Your task to perform on an android device: clear history in the chrome app Image 0: 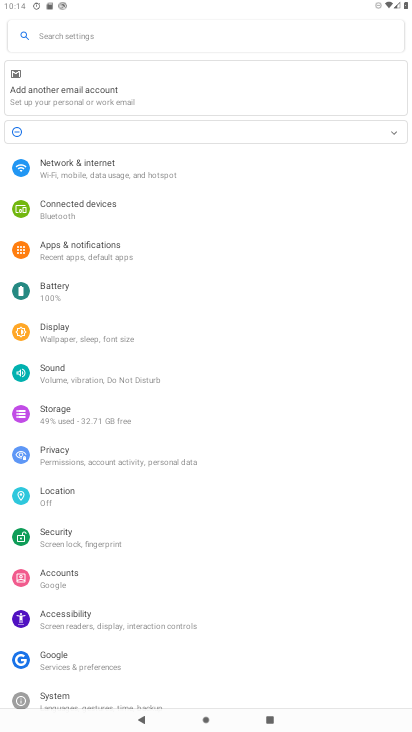
Step 0: press home button
Your task to perform on an android device: clear history in the chrome app Image 1: 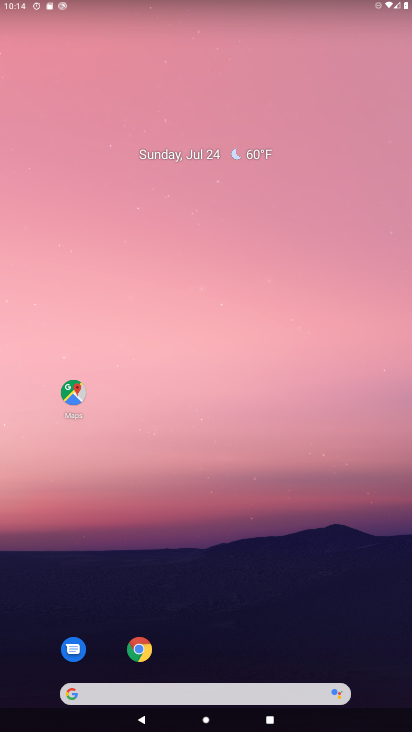
Step 1: drag from (255, 644) to (285, 71)
Your task to perform on an android device: clear history in the chrome app Image 2: 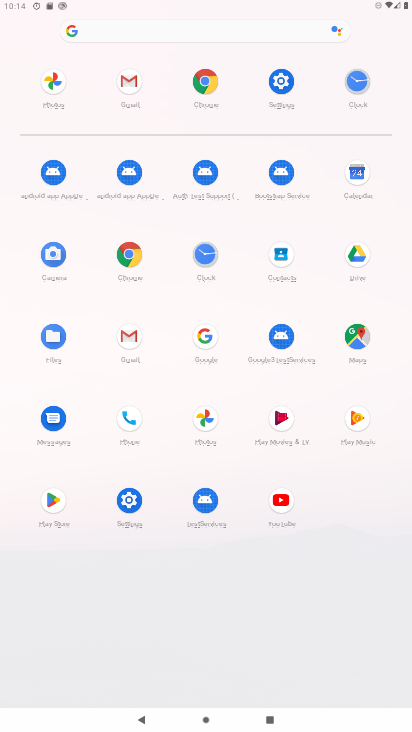
Step 2: click (211, 82)
Your task to perform on an android device: clear history in the chrome app Image 3: 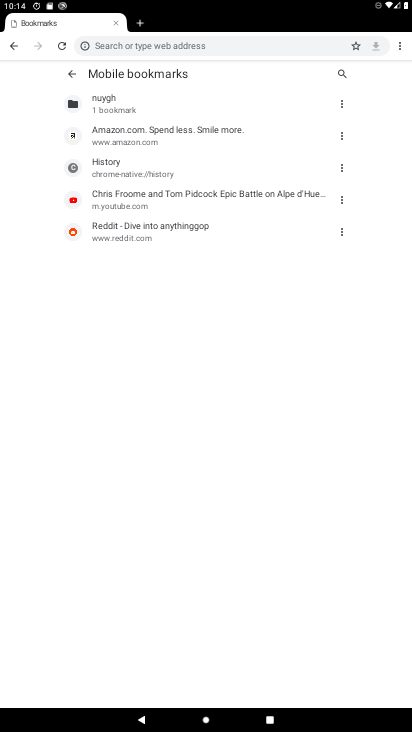
Step 3: drag from (396, 36) to (311, 165)
Your task to perform on an android device: clear history in the chrome app Image 4: 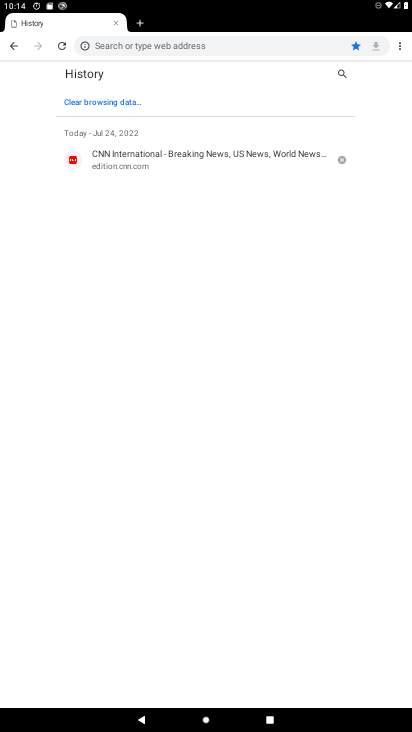
Step 4: click (121, 104)
Your task to perform on an android device: clear history in the chrome app Image 5: 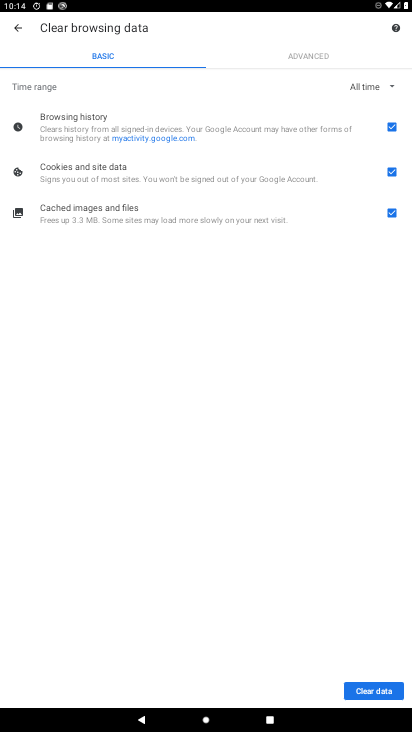
Step 5: click (373, 682)
Your task to perform on an android device: clear history in the chrome app Image 6: 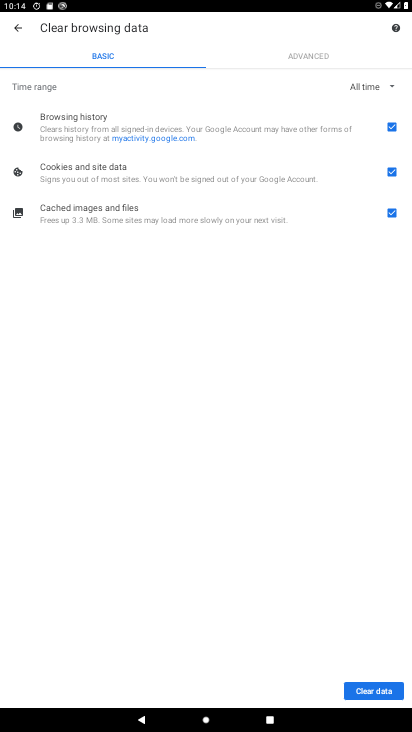
Step 6: click (376, 687)
Your task to perform on an android device: clear history in the chrome app Image 7: 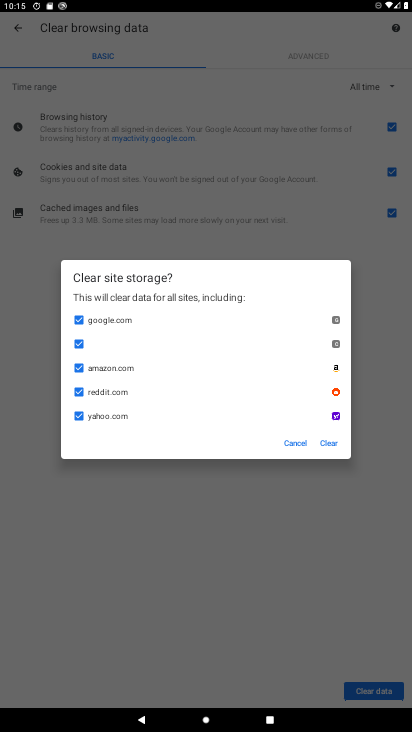
Step 7: click (332, 445)
Your task to perform on an android device: clear history in the chrome app Image 8: 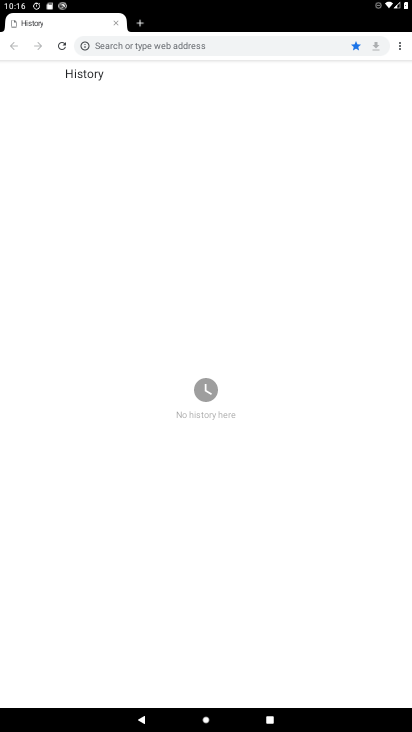
Step 8: task complete